Your task to perform on an android device: Do I have any events this weekend? Image 0: 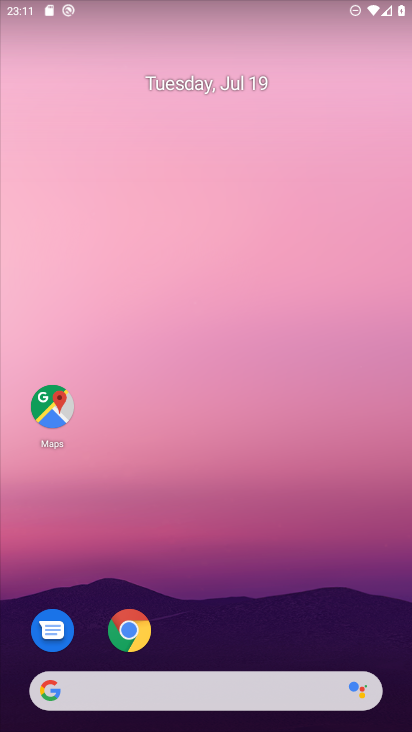
Step 0: drag from (247, 625) to (200, 209)
Your task to perform on an android device: Do I have any events this weekend? Image 1: 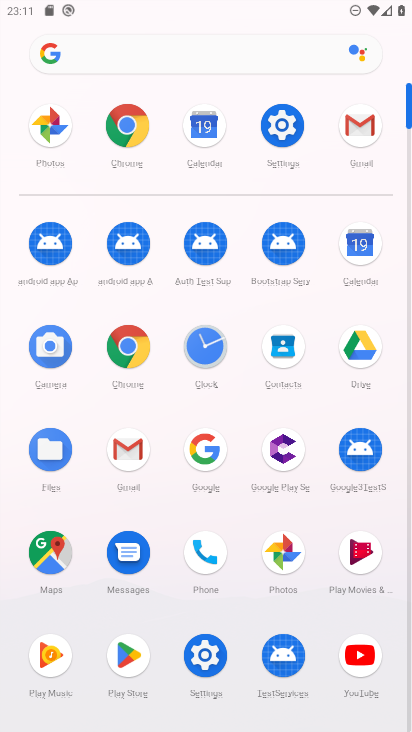
Step 1: click (346, 254)
Your task to perform on an android device: Do I have any events this weekend? Image 2: 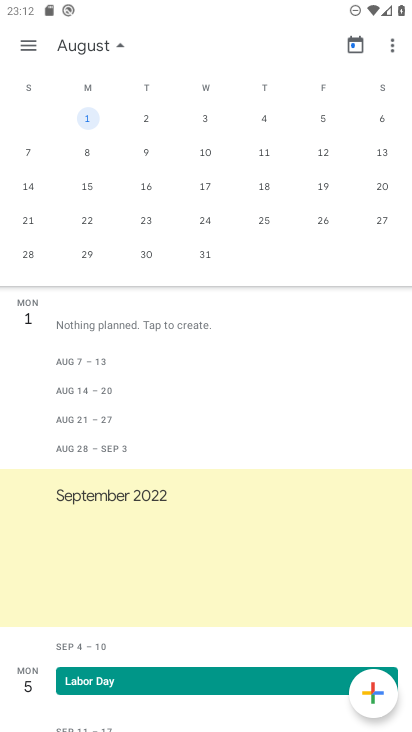
Step 2: drag from (77, 149) to (321, 151)
Your task to perform on an android device: Do I have any events this weekend? Image 3: 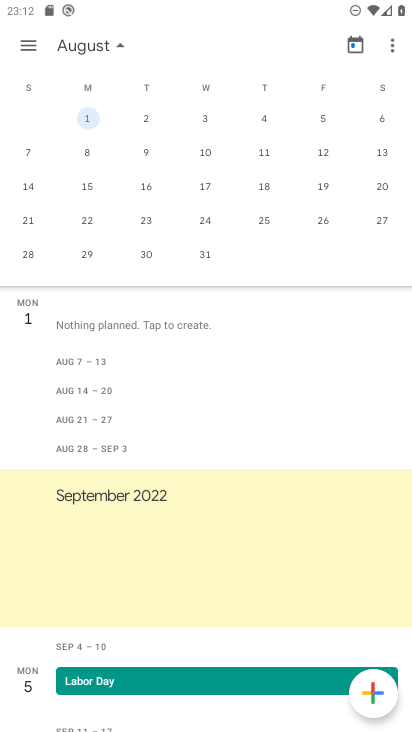
Step 3: drag from (13, 165) to (379, 166)
Your task to perform on an android device: Do I have any events this weekend? Image 4: 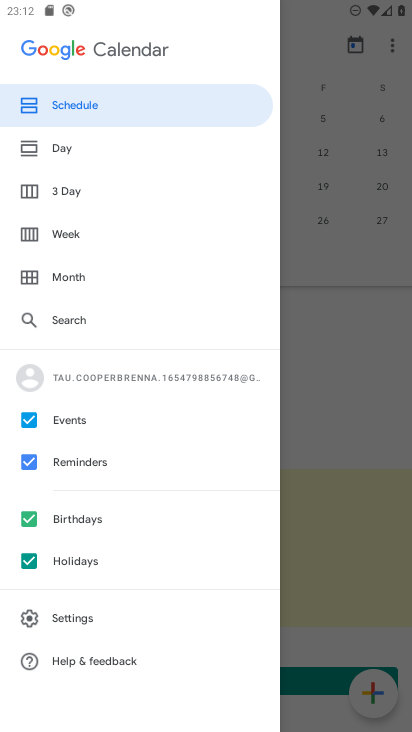
Step 4: click (363, 201)
Your task to perform on an android device: Do I have any events this weekend? Image 5: 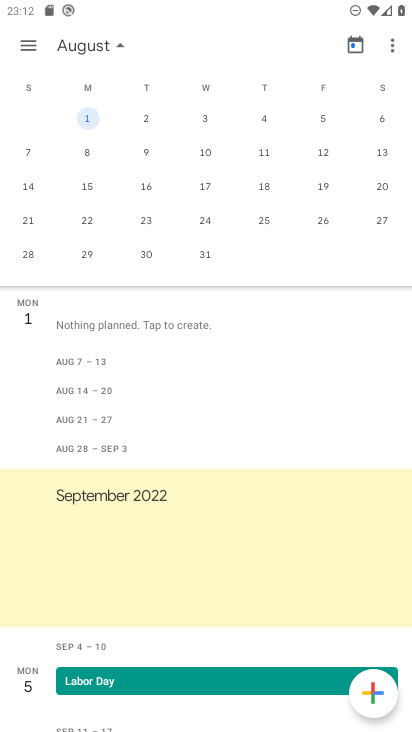
Step 5: drag from (81, 148) to (337, 161)
Your task to perform on an android device: Do I have any events this weekend? Image 6: 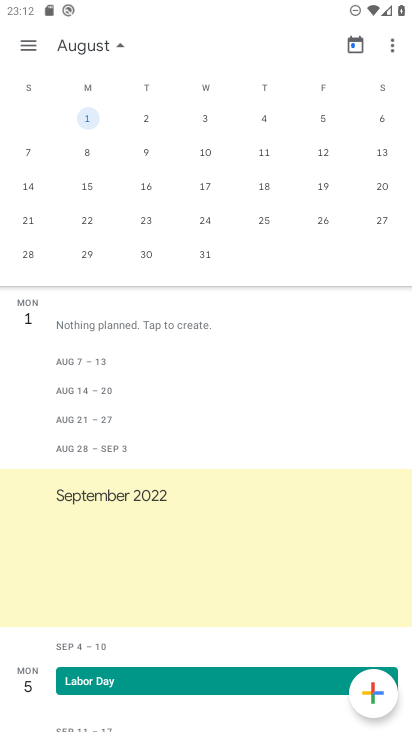
Step 6: drag from (51, 151) to (385, 162)
Your task to perform on an android device: Do I have any events this weekend? Image 7: 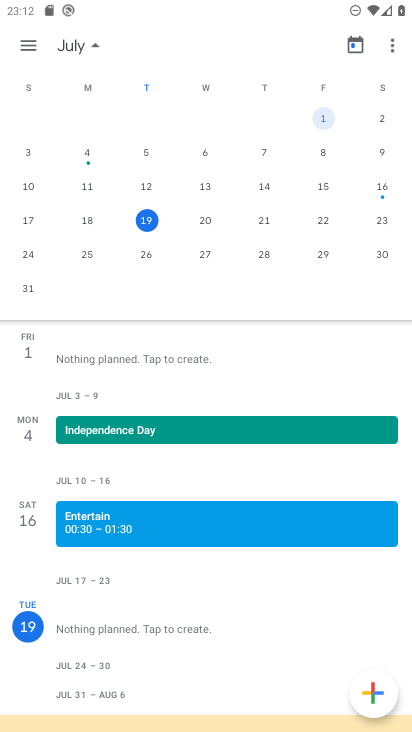
Step 7: click (370, 215)
Your task to perform on an android device: Do I have any events this weekend? Image 8: 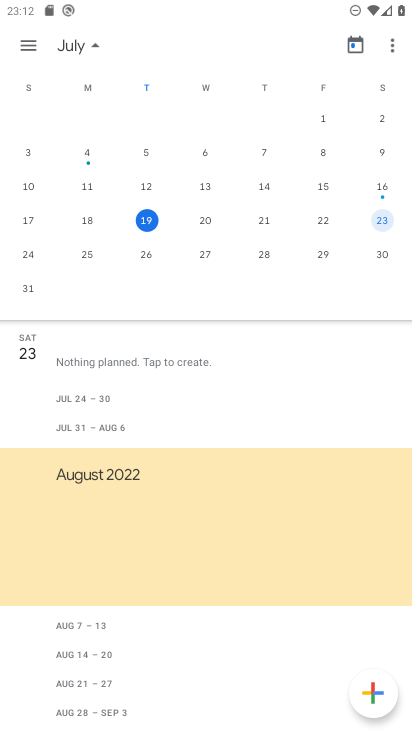
Step 8: task complete